Your task to perform on an android device: Open Google Maps and go to "Timeline" Image 0: 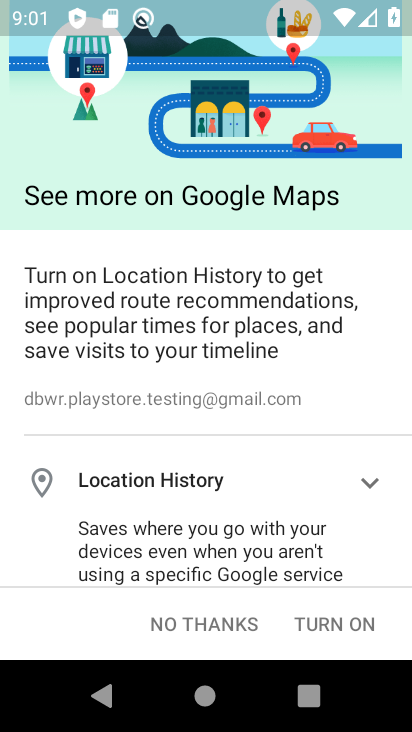
Step 0: press home button
Your task to perform on an android device: Open Google Maps and go to "Timeline" Image 1: 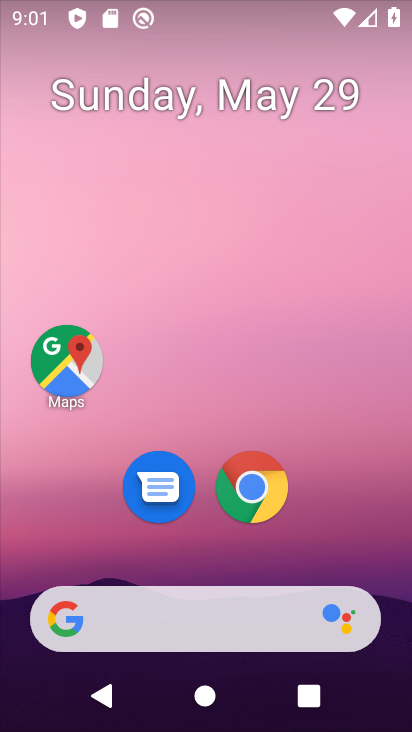
Step 1: click (72, 364)
Your task to perform on an android device: Open Google Maps and go to "Timeline" Image 2: 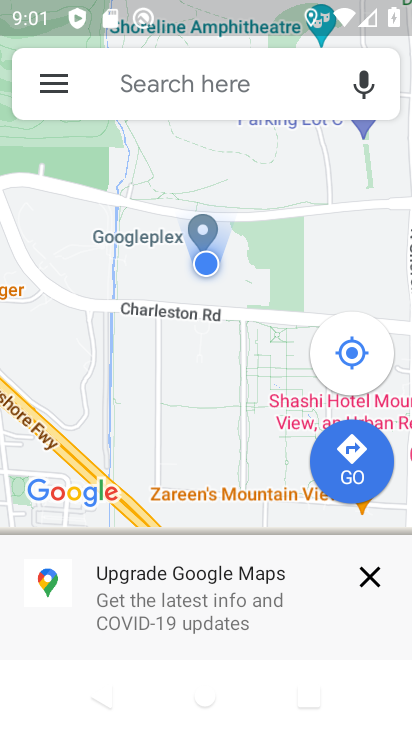
Step 2: click (58, 86)
Your task to perform on an android device: Open Google Maps and go to "Timeline" Image 3: 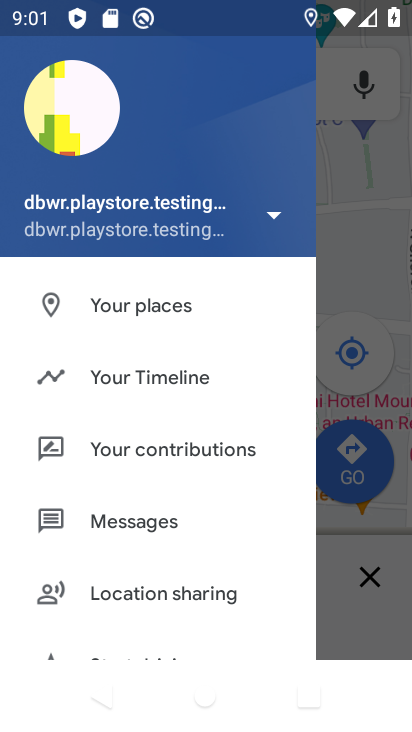
Step 3: click (197, 378)
Your task to perform on an android device: Open Google Maps and go to "Timeline" Image 4: 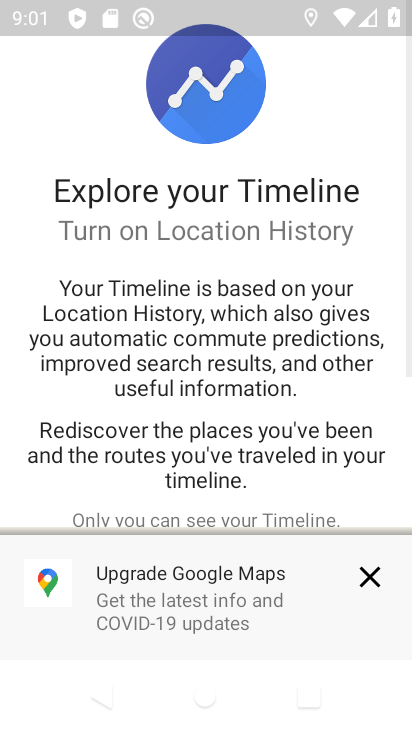
Step 4: click (380, 573)
Your task to perform on an android device: Open Google Maps and go to "Timeline" Image 5: 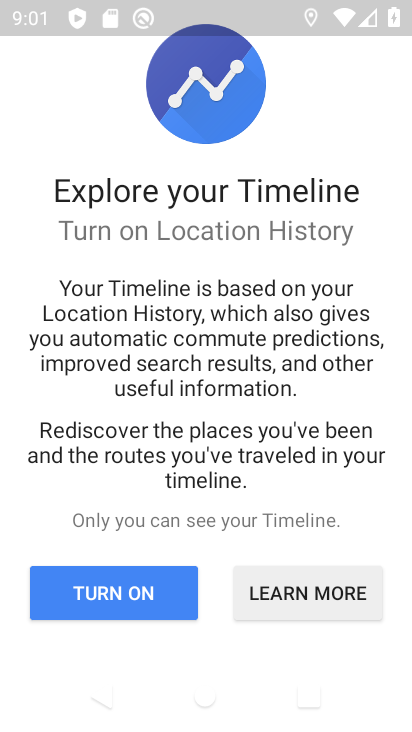
Step 5: click (155, 594)
Your task to perform on an android device: Open Google Maps and go to "Timeline" Image 6: 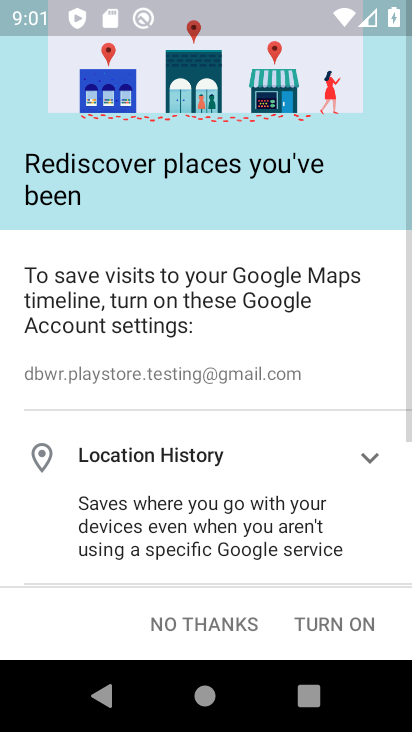
Step 6: click (342, 630)
Your task to perform on an android device: Open Google Maps and go to "Timeline" Image 7: 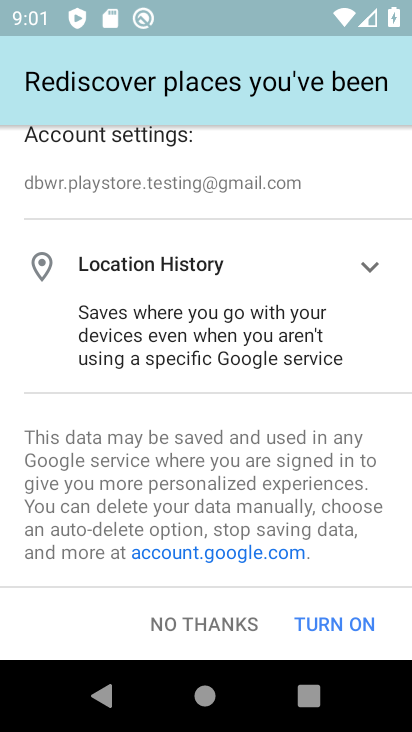
Step 7: drag from (304, 526) to (292, 299)
Your task to perform on an android device: Open Google Maps and go to "Timeline" Image 8: 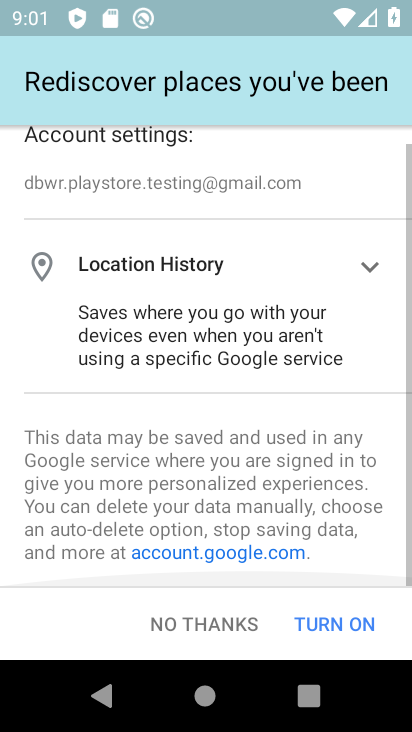
Step 8: click (343, 615)
Your task to perform on an android device: Open Google Maps and go to "Timeline" Image 9: 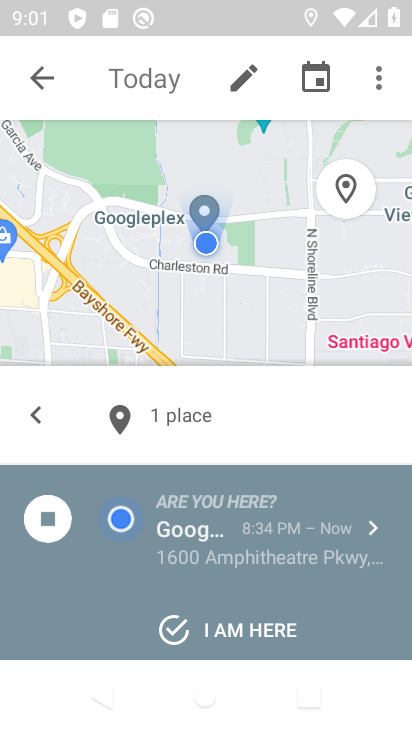
Step 9: task complete